Your task to perform on an android device: Open privacy settings Image 0: 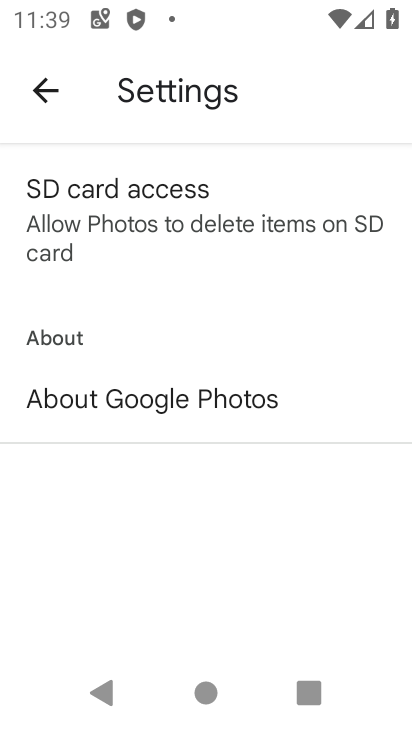
Step 0: press back button
Your task to perform on an android device: Open privacy settings Image 1: 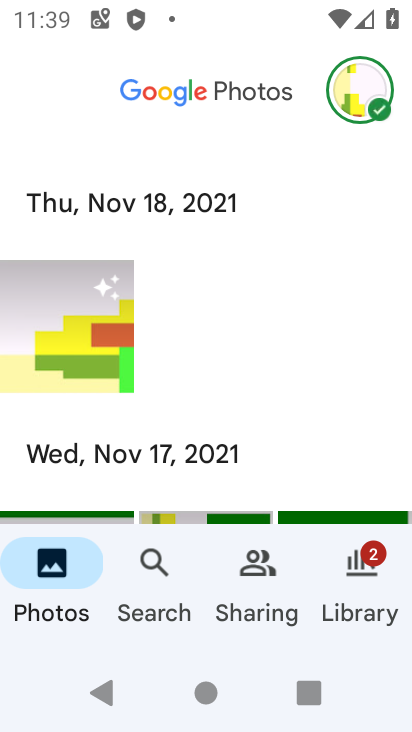
Step 1: press home button
Your task to perform on an android device: Open privacy settings Image 2: 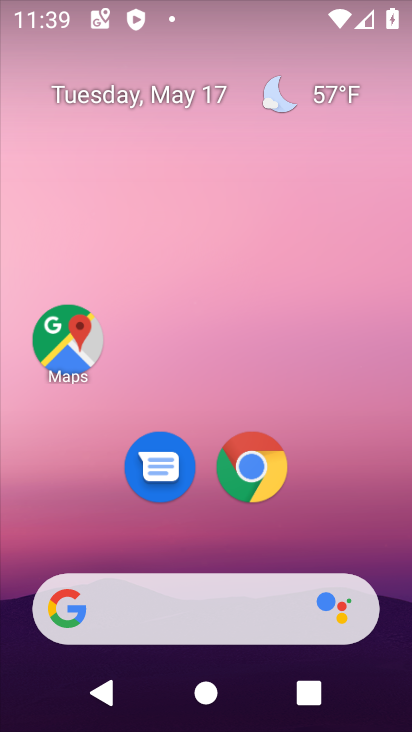
Step 2: drag from (292, 631) to (265, 219)
Your task to perform on an android device: Open privacy settings Image 3: 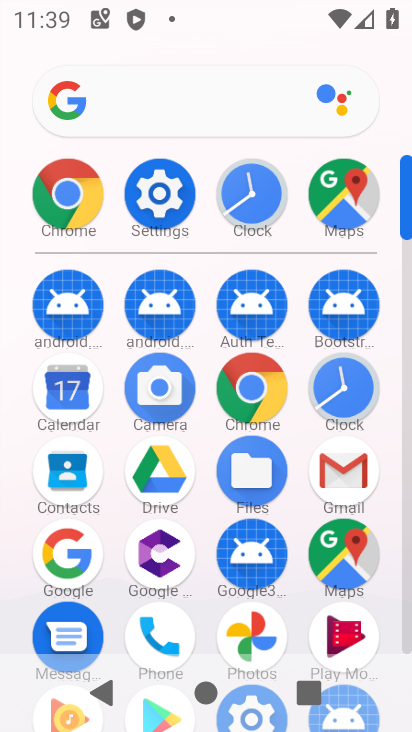
Step 3: click (164, 187)
Your task to perform on an android device: Open privacy settings Image 4: 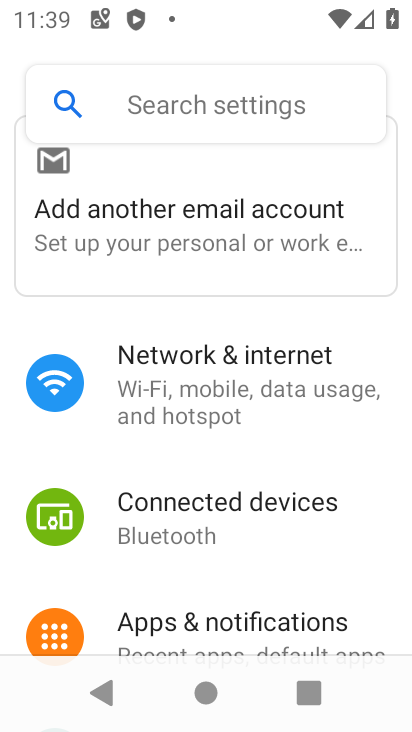
Step 4: click (187, 119)
Your task to perform on an android device: Open privacy settings Image 5: 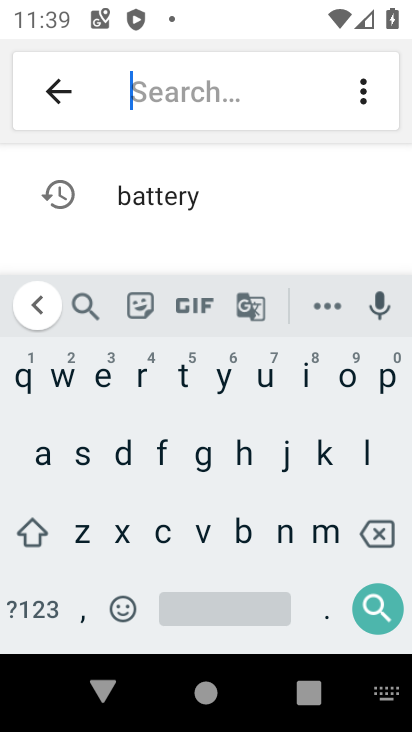
Step 5: click (381, 388)
Your task to perform on an android device: Open privacy settings Image 6: 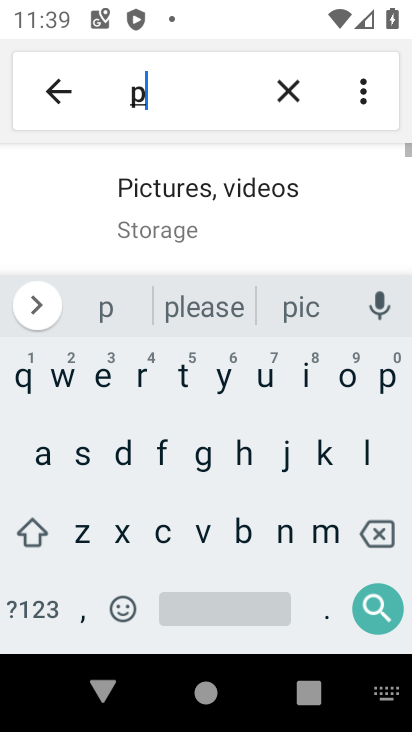
Step 6: click (142, 377)
Your task to perform on an android device: Open privacy settings Image 7: 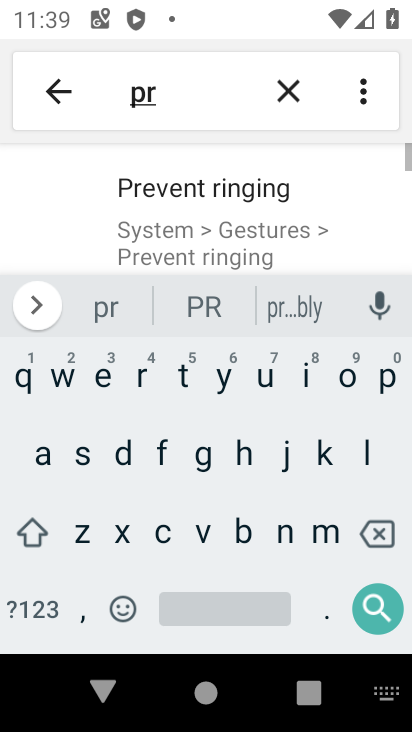
Step 7: click (304, 377)
Your task to perform on an android device: Open privacy settings Image 8: 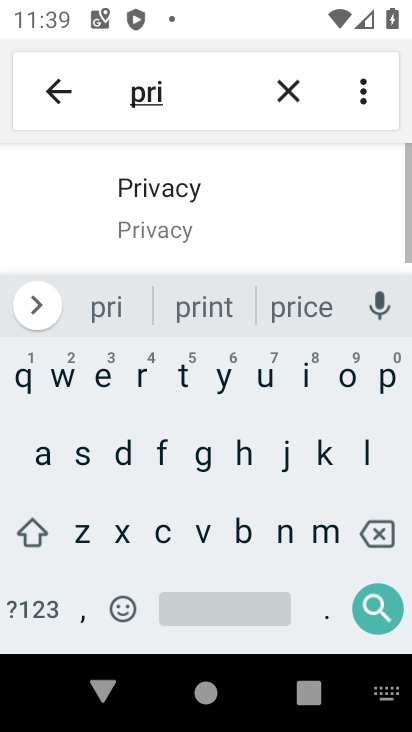
Step 8: click (186, 214)
Your task to perform on an android device: Open privacy settings Image 9: 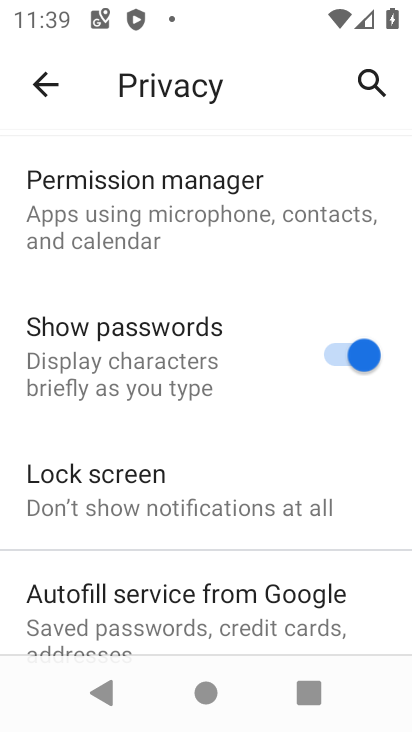
Step 9: task complete